Your task to perform on an android device: check google app version Image 0: 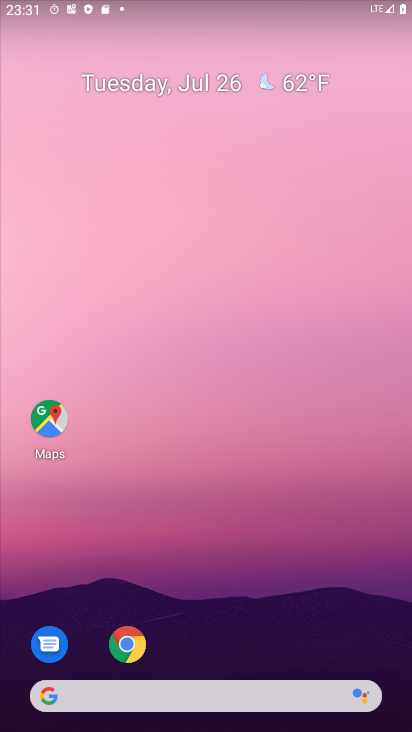
Step 0: drag from (249, 647) to (173, 7)
Your task to perform on an android device: check google app version Image 1: 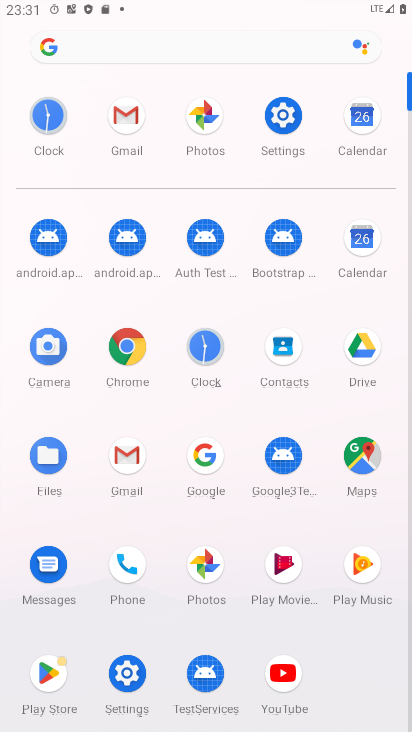
Step 1: click (208, 462)
Your task to perform on an android device: check google app version Image 2: 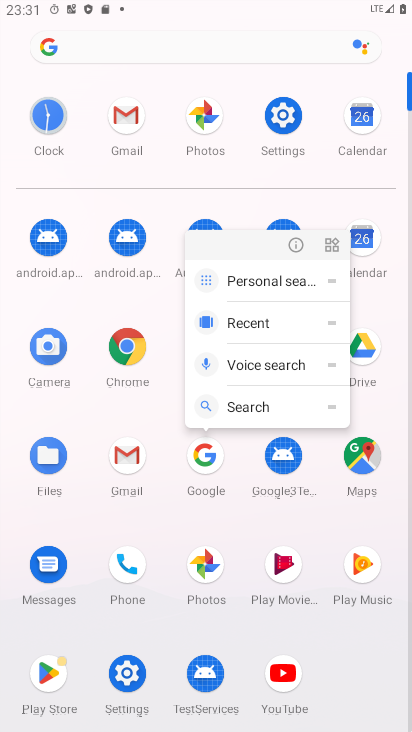
Step 2: click (300, 251)
Your task to perform on an android device: check google app version Image 3: 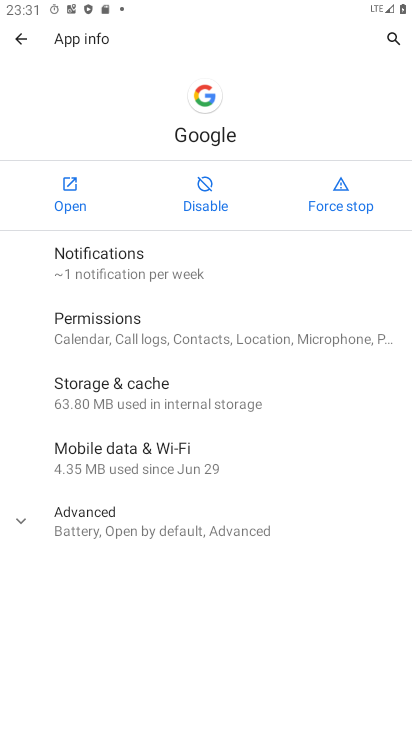
Step 3: click (30, 527)
Your task to perform on an android device: check google app version Image 4: 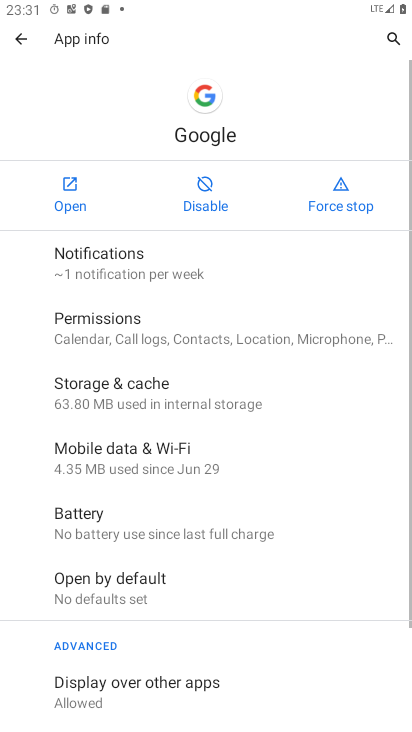
Step 4: task complete